Your task to perform on an android device: Go to Reddit.com Image 0: 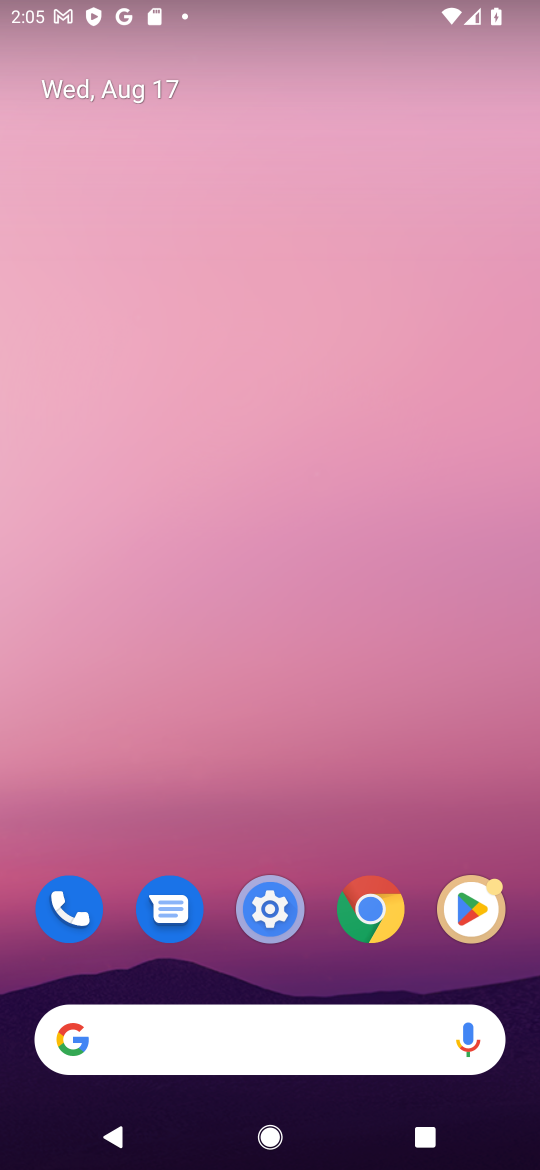
Step 0: click (318, 1048)
Your task to perform on an android device: Go to Reddit.com Image 1: 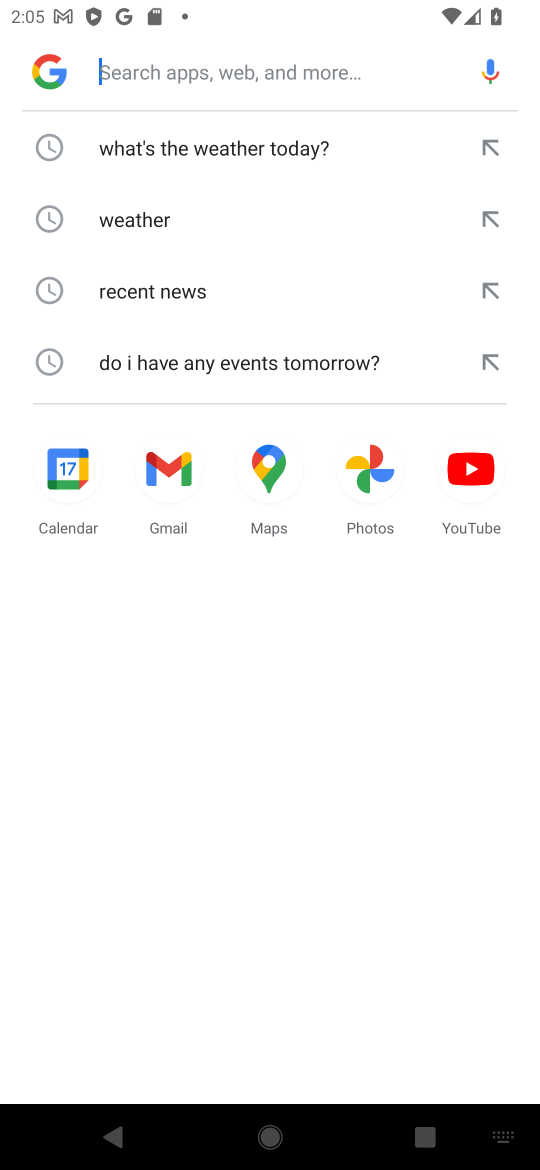
Step 1: type "Reddit.com"
Your task to perform on an android device: Go to Reddit.com Image 2: 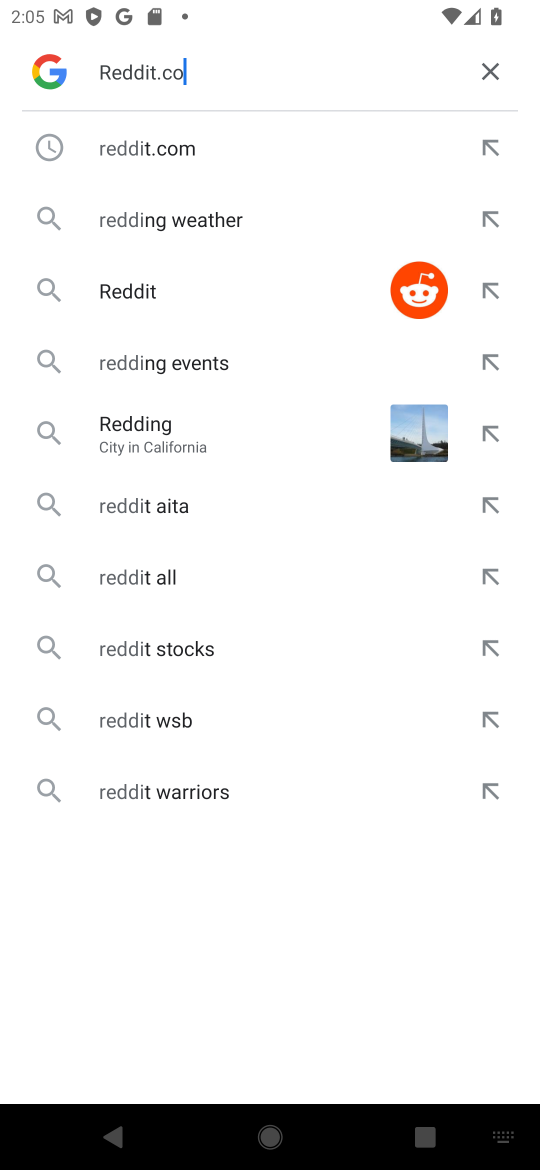
Step 2: press enter
Your task to perform on an android device: Go to Reddit.com Image 3: 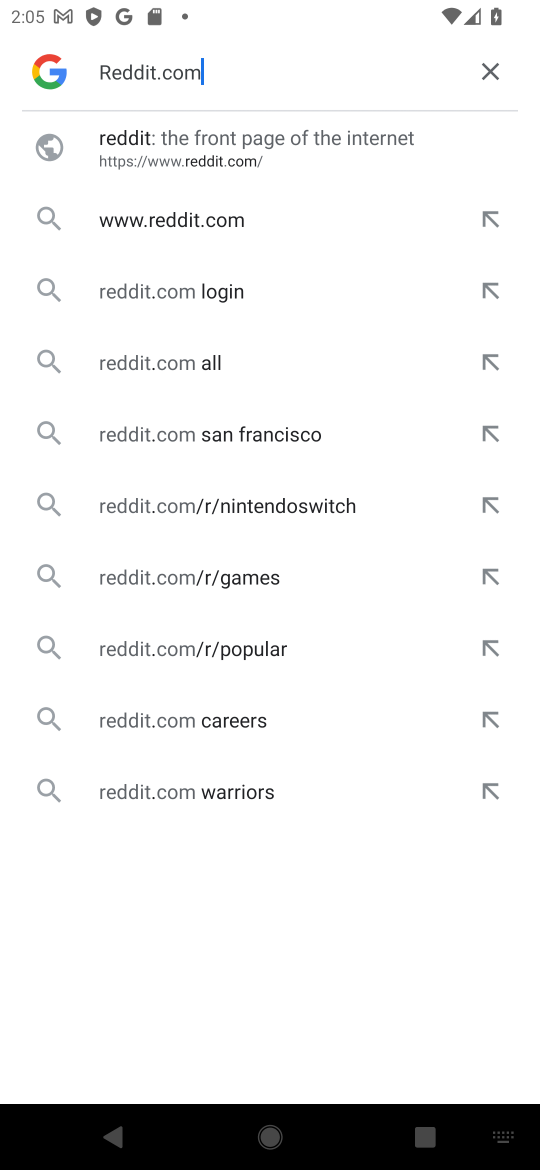
Step 3: type ""
Your task to perform on an android device: Go to Reddit.com Image 4: 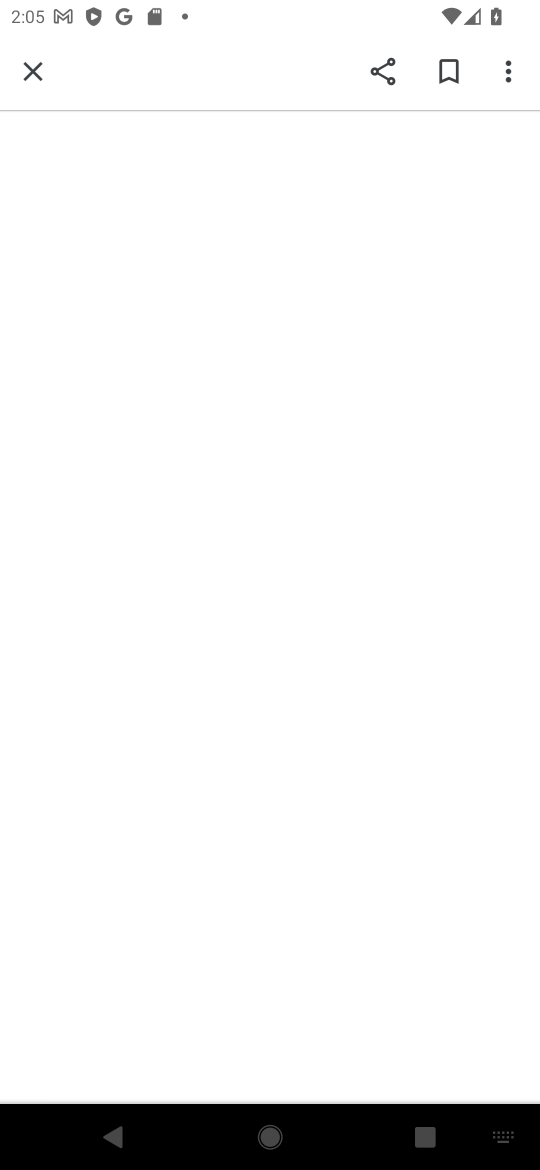
Step 4: task complete